Your task to perform on an android device: open app "Google Sheets" (install if not already installed) Image 0: 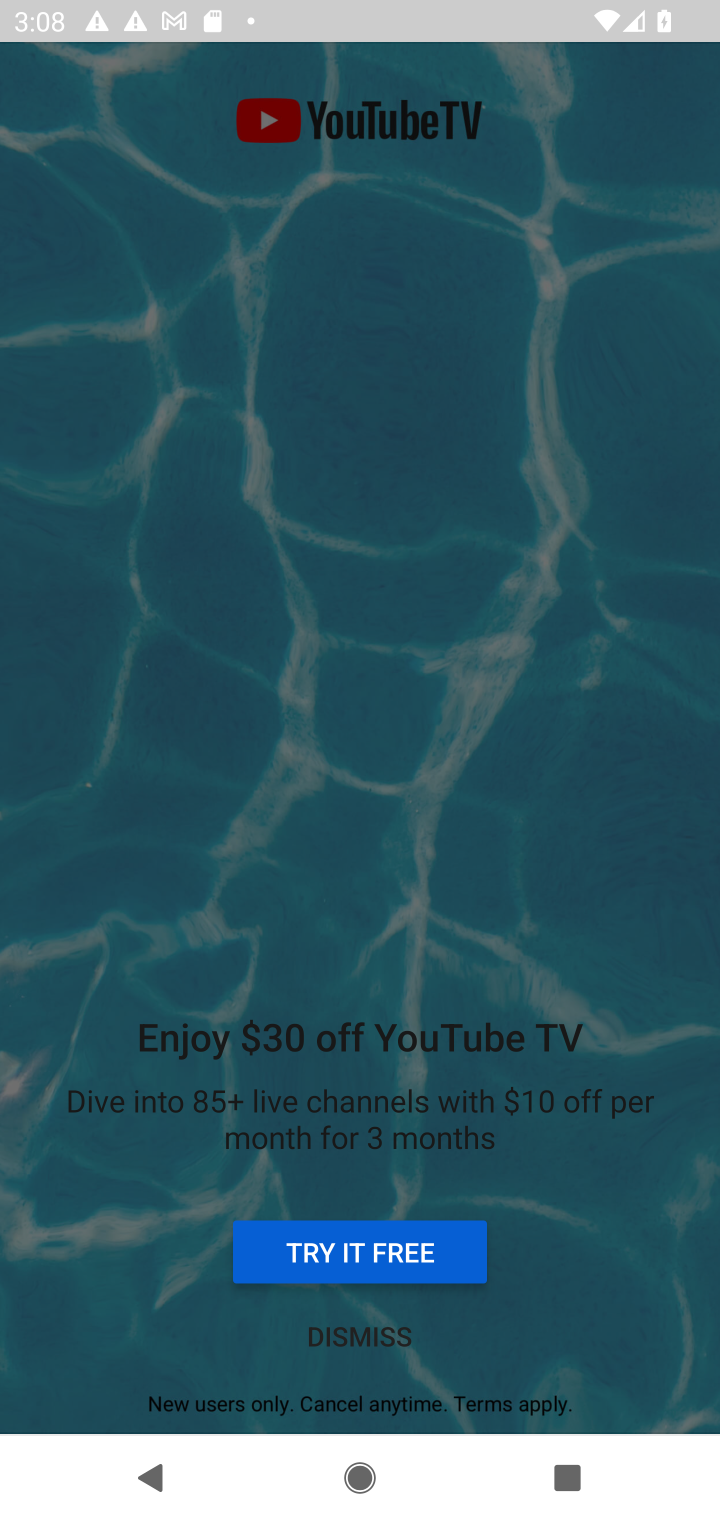
Step 0: press home button
Your task to perform on an android device: open app "Google Sheets" (install if not already installed) Image 1: 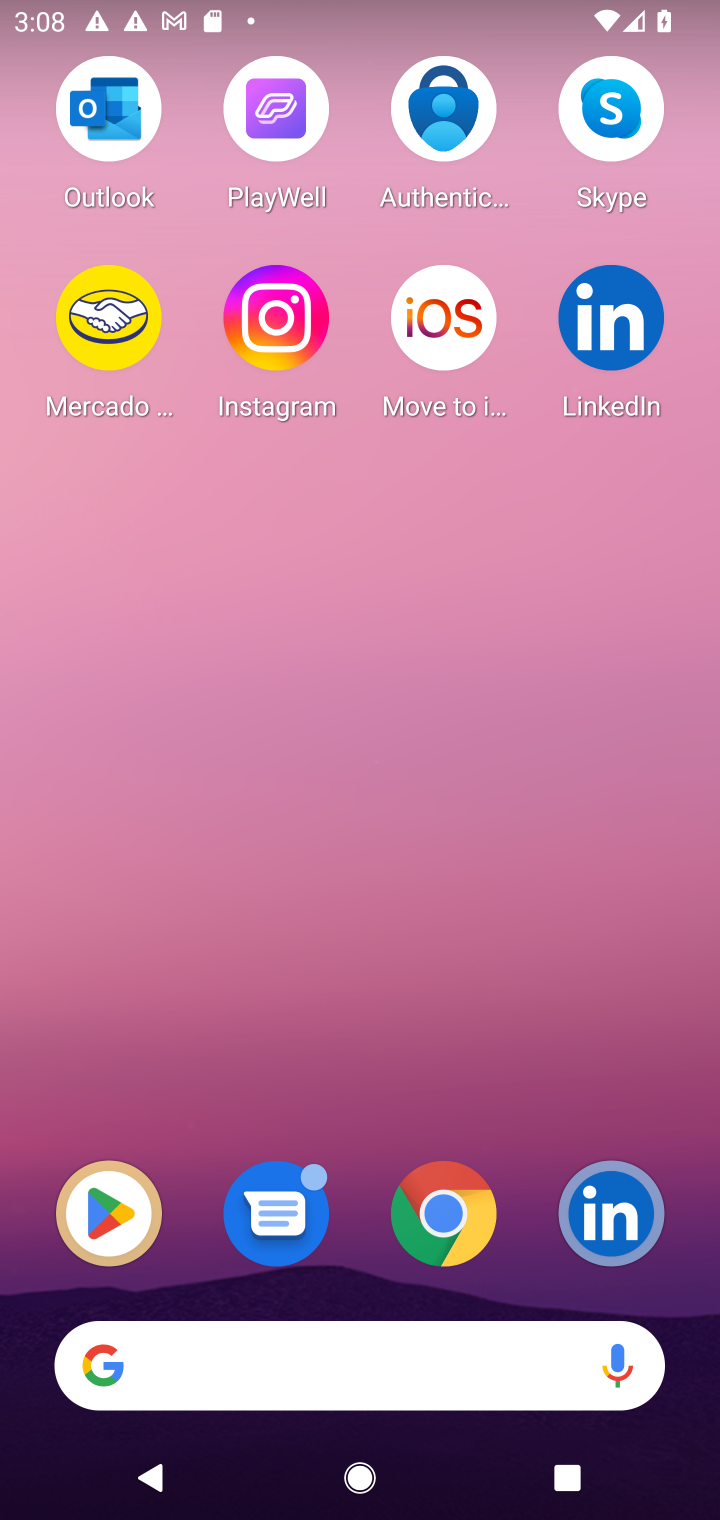
Step 1: drag from (576, 636) to (565, 156)
Your task to perform on an android device: open app "Google Sheets" (install if not already installed) Image 2: 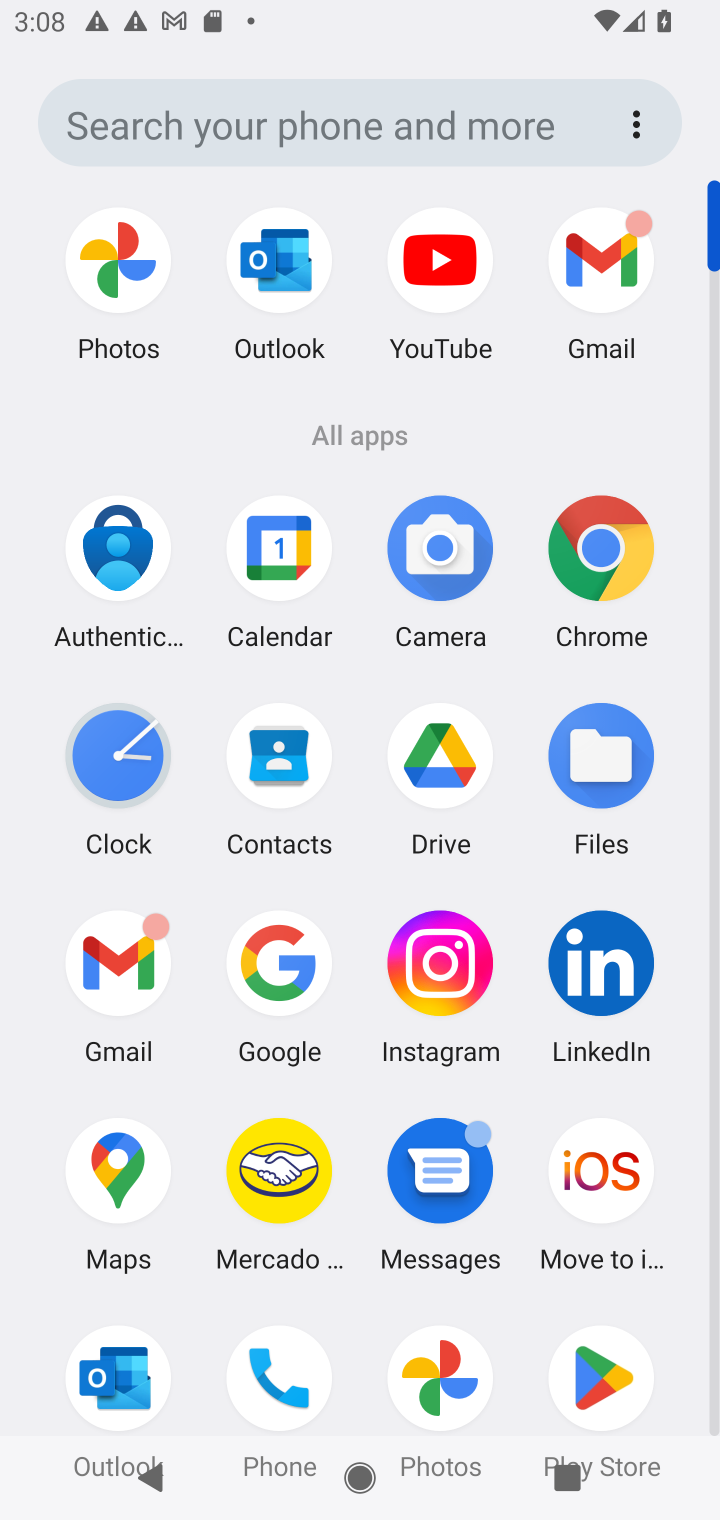
Step 2: click (611, 1391)
Your task to perform on an android device: open app "Google Sheets" (install if not already installed) Image 3: 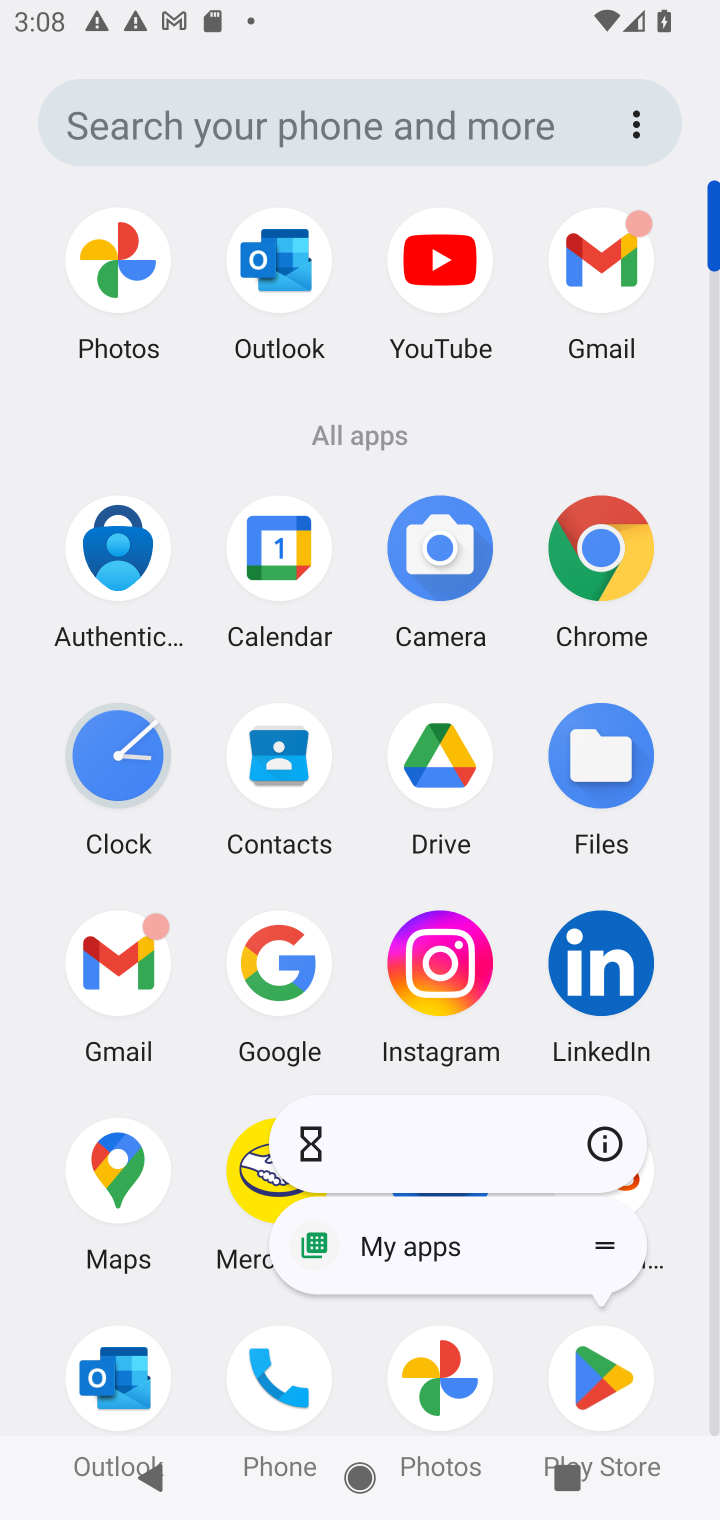
Step 3: click (594, 1391)
Your task to perform on an android device: open app "Google Sheets" (install if not already installed) Image 4: 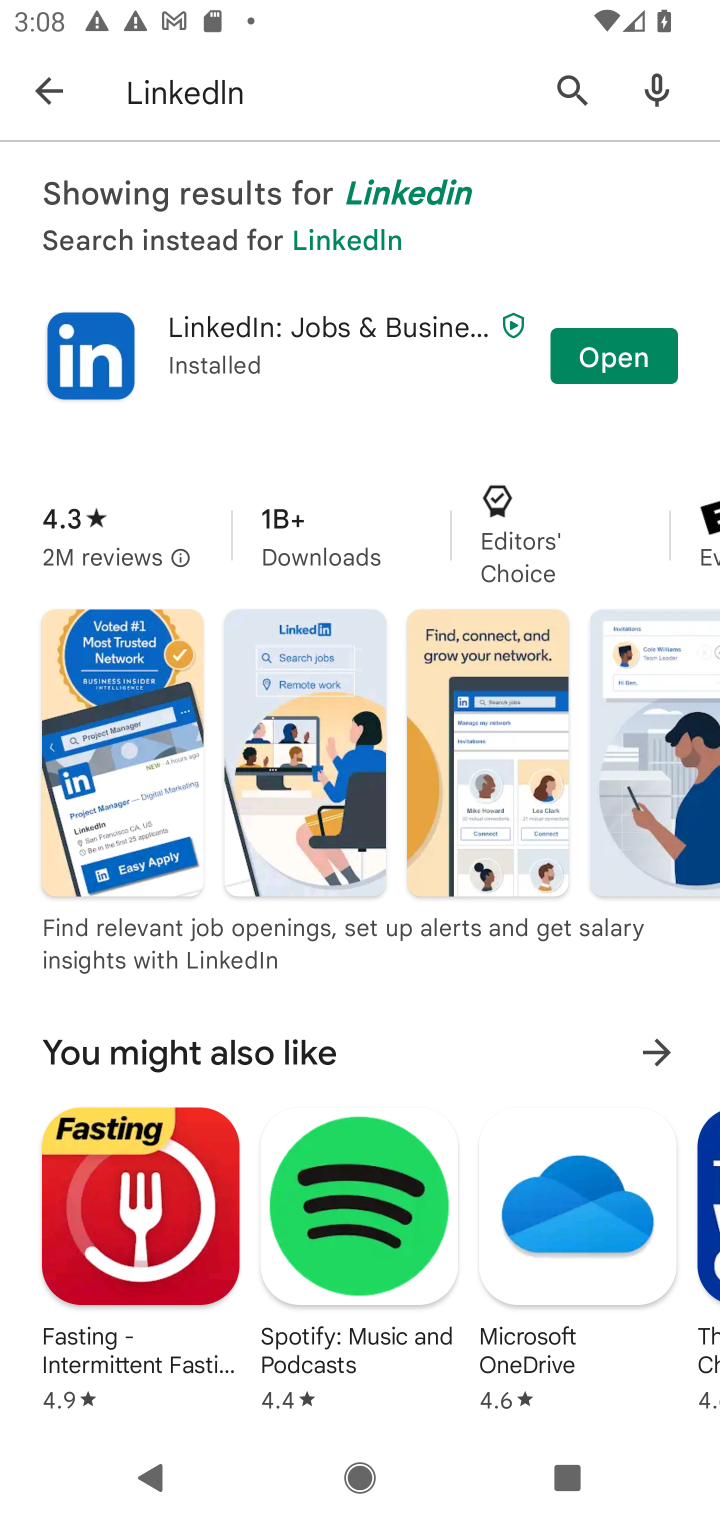
Step 4: click (506, 94)
Your task to perform on an android device: open app "Google Sheets" (install if not already installed) Image 5: 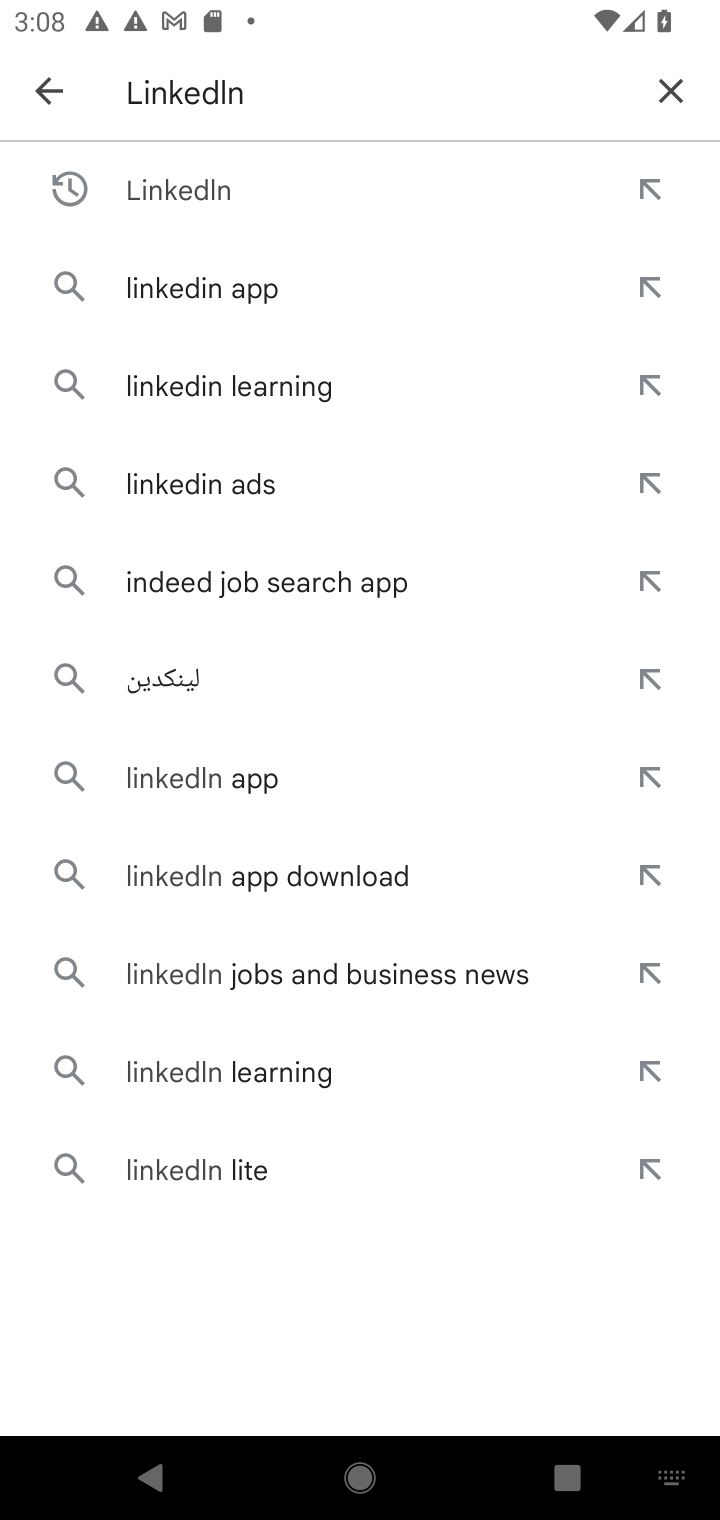
Step 5: click (679, 96)
Your task to perform on an android device: open app "Google Sheets" (install if not already installed) Image 6: 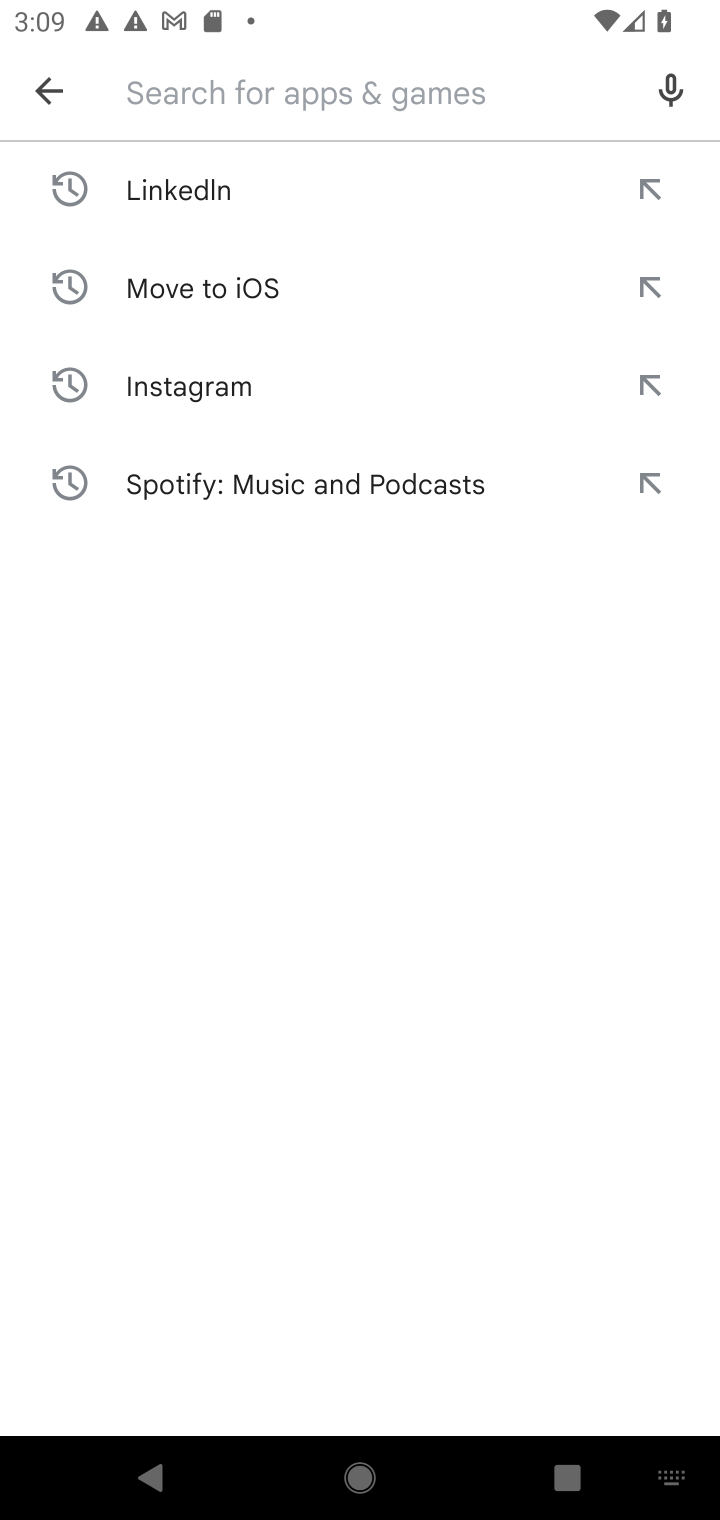
Step 6: type "Google Sheets"
Your task to perform on an android device: open app "Google Sheets" (install if not already installed) Image 7: 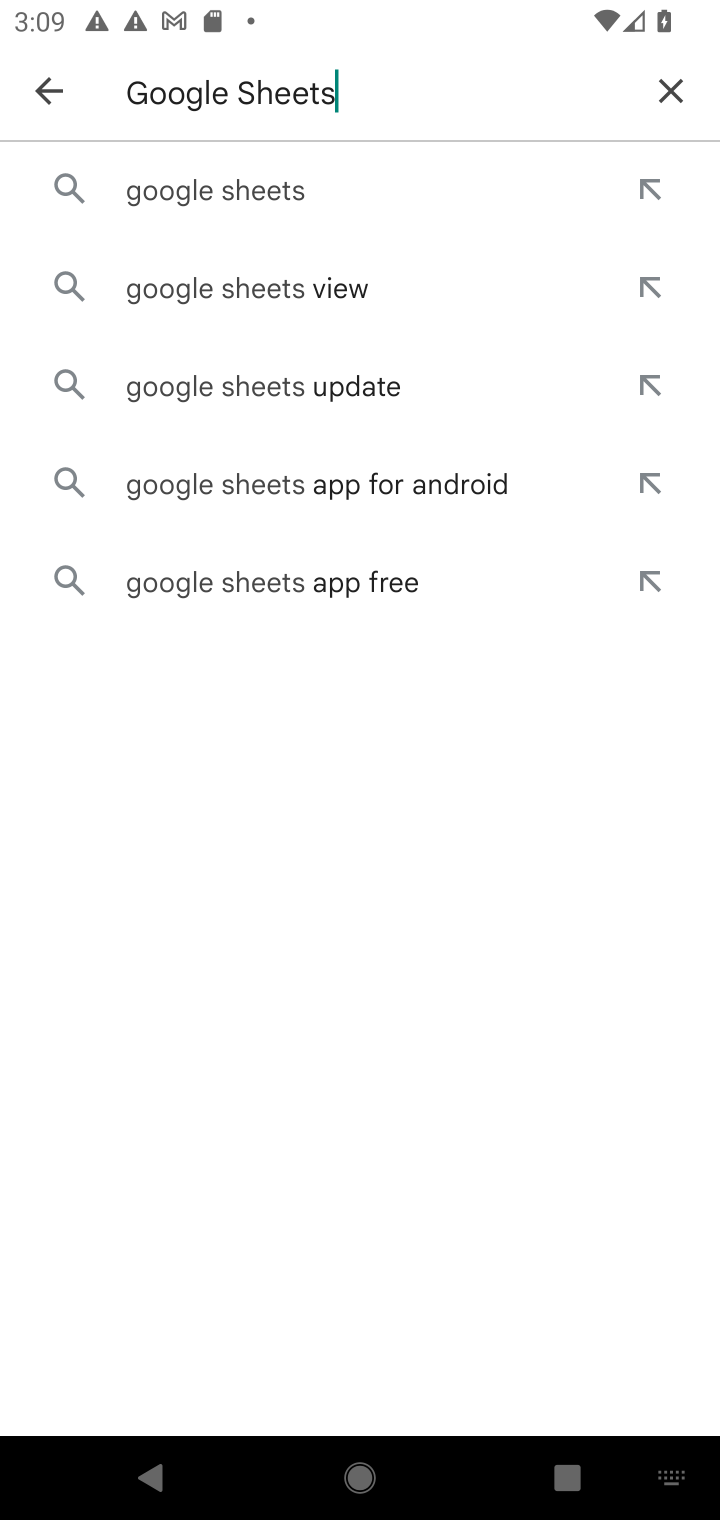
Step 7: press enter
Your task to perform on an android device: open app "Google Sheets" (install if not already installed) Image 8: 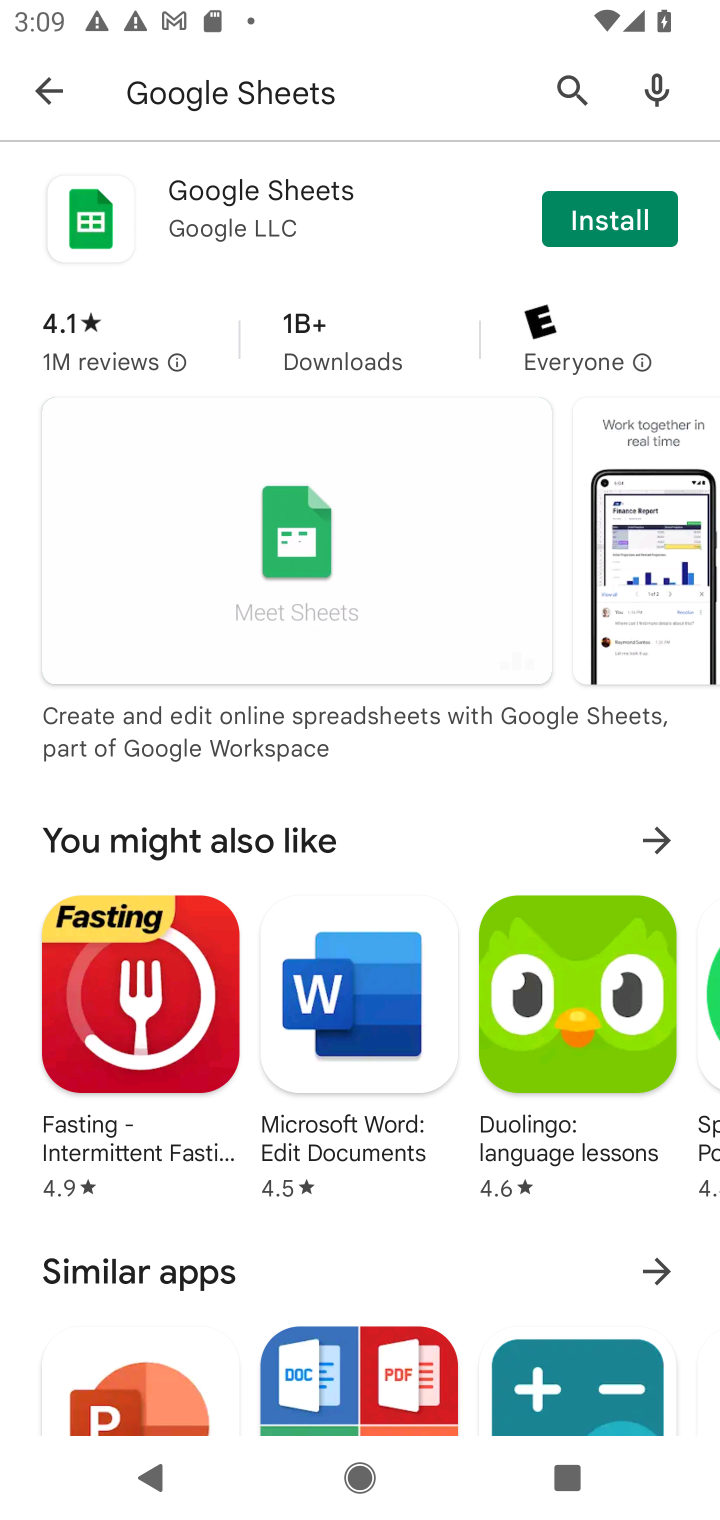
Step 8: click (591, 204)
Your task to perform on an android device: open app "Google Sheets" (install if not already installed) Image 9: 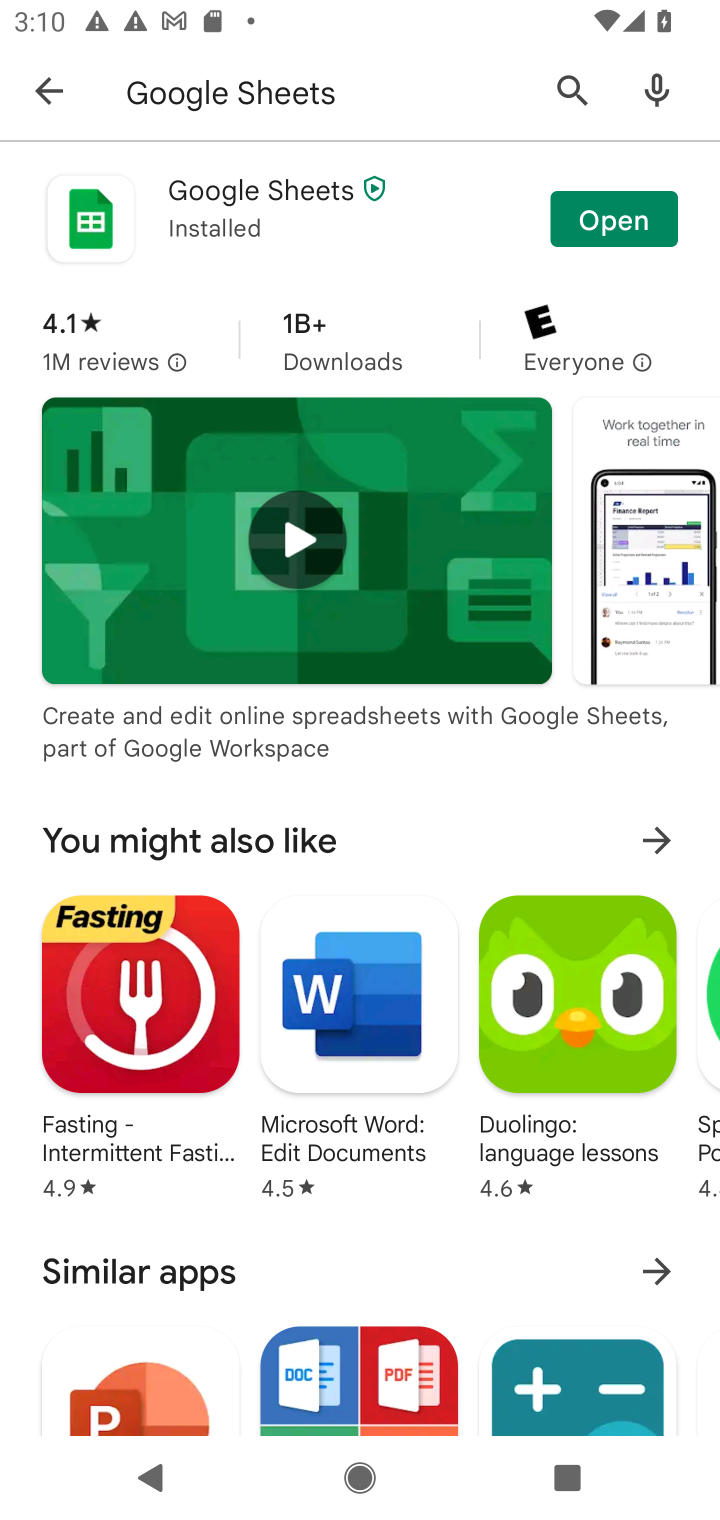
Step 9: click (654, 219)
Your task to perform on an android device: open app "Google Sheets" (install if not already installed) Image 10: 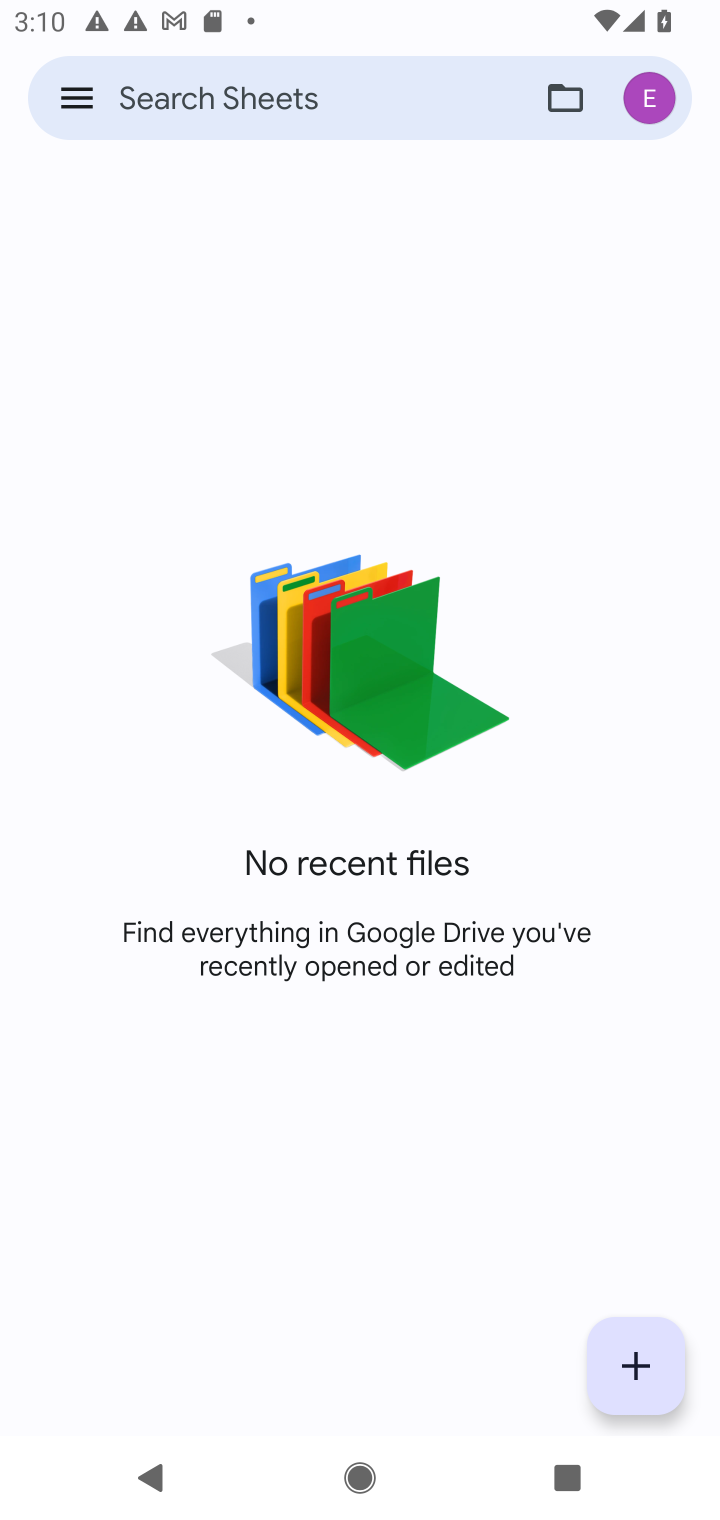
Step 10: task complete